Your task to perform on an android device: open app "ZOOM Cloud Meetings" (install if not already installed) Image 0: 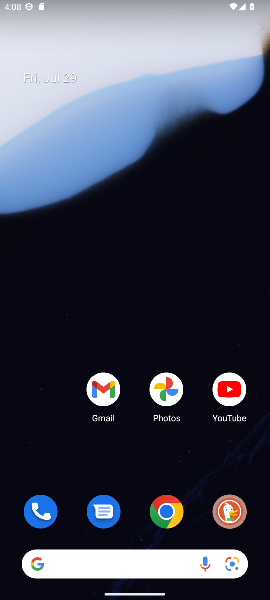
Step 0: drag from (17, 563) to (187, 59)
Your task to perform on an android device: open app "ZOOM Cloud Meetings" (install if not already installed) Image 1: 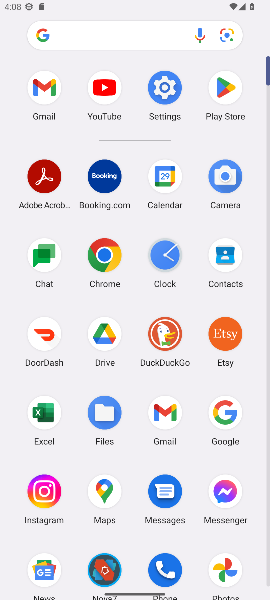
Step 1: click (212, 109)
Your task to perform on an android device: open app "ZOOM Cloud Meetings" (install if not already installed) Image 2: 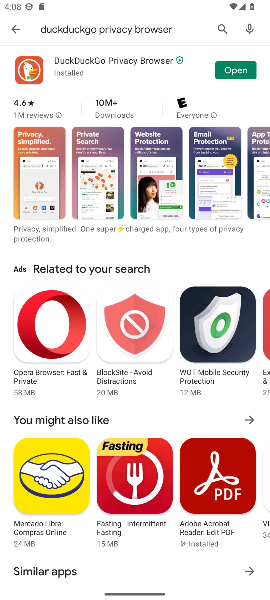
Step 2: click (20, 30)
Your task to perform on an android device: open app "ZOOM Cloud Meetings" (install if not already installed) Image 3: 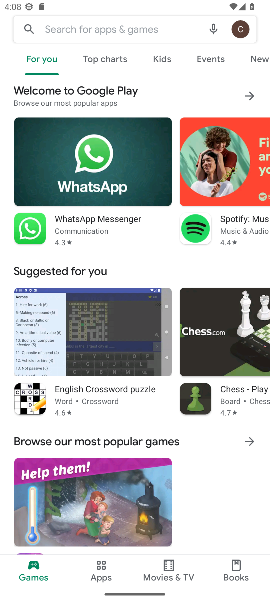
Step 3: click (49, 29)
Your task to perform on an android device: open app "ZOOM Cloud Meetings" (install if not already installed) Image 4: 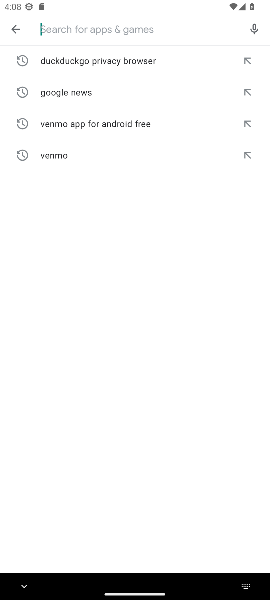
Step 4: type "ZOOM Cloud Meetings"
Your task to perform on an android device: open app "ZOOM Cloud Meetings" (install if not already installed) Image 5: 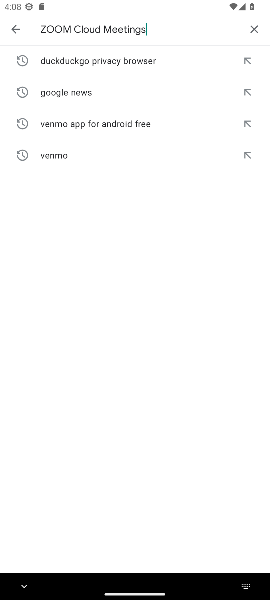
Step 5: type ""
Your task to perform on an android device: open app "ZOOM Cloud Meetings" (install if not already installed) Image 6: 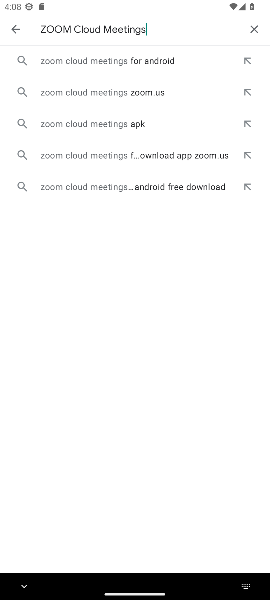
Step 6: click (105, 63)
Your task to perform on an android device: open app "ZOOM Cloud Meetings" (install if not already installed) Image 7: 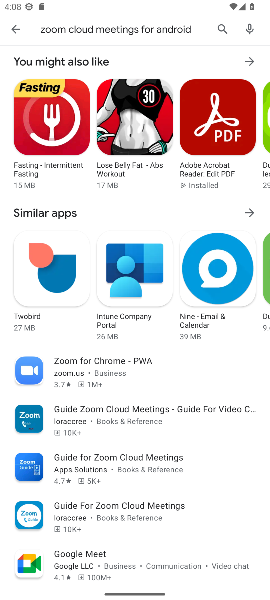
Step 7: task complete